Your task to perform on an android device: Open Chrome and go to settings Image 0: 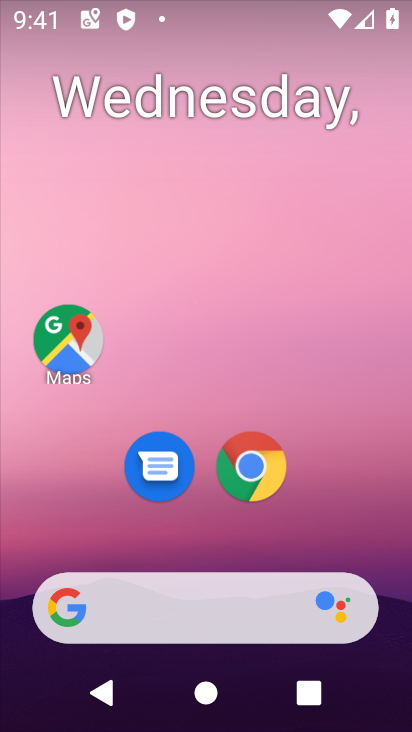
Step 0: click (267, 449)
Your task to perform on an android device: Open Chrome and go to settings Image 1: 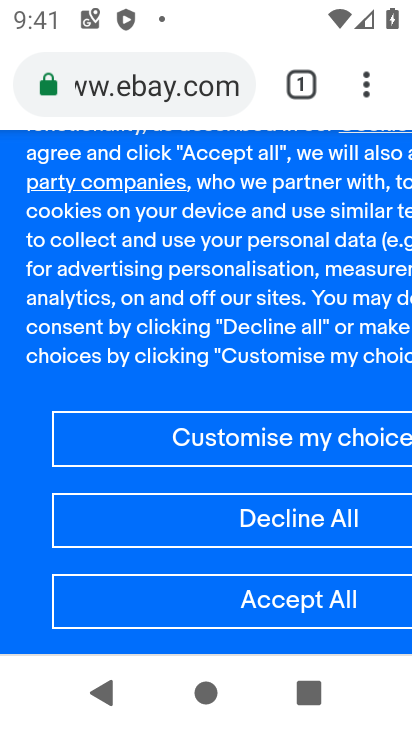
Step 1: click (368, 86)
Your task to perform on an android device: Open Chrome and go to settings Image 2: 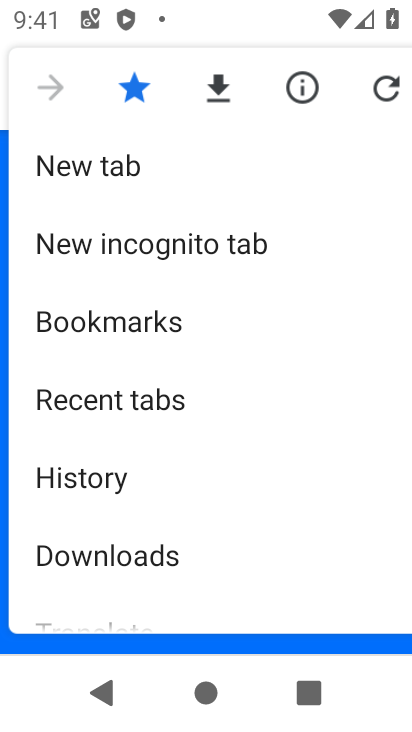
Step 2: drag from (321, 569) to (325, 76)
Your task to perform on an android device: Open Chrome and go to settings Image 3: 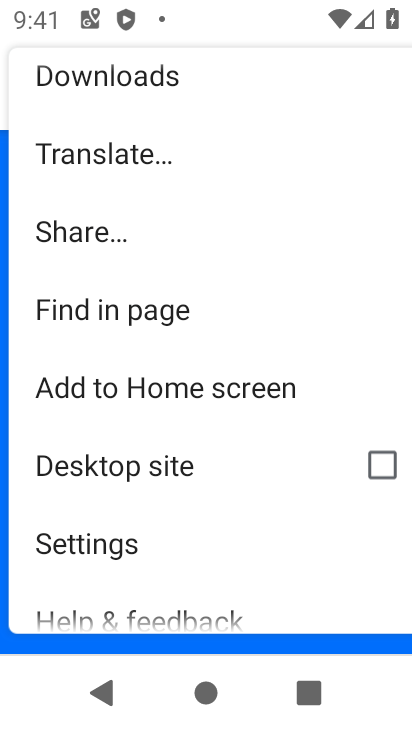
Step 3: click (115, 551)
Your task to perform on an android device: Open Chrome and go to settings Image 4: 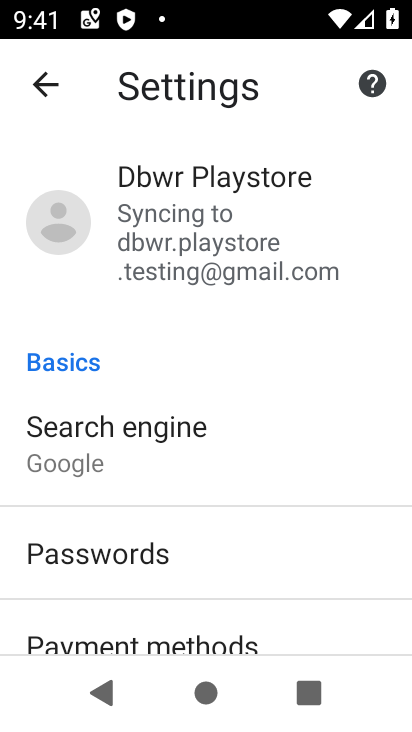
Step 4: task complete